Your task to perform on an android device: check android version Image 0: 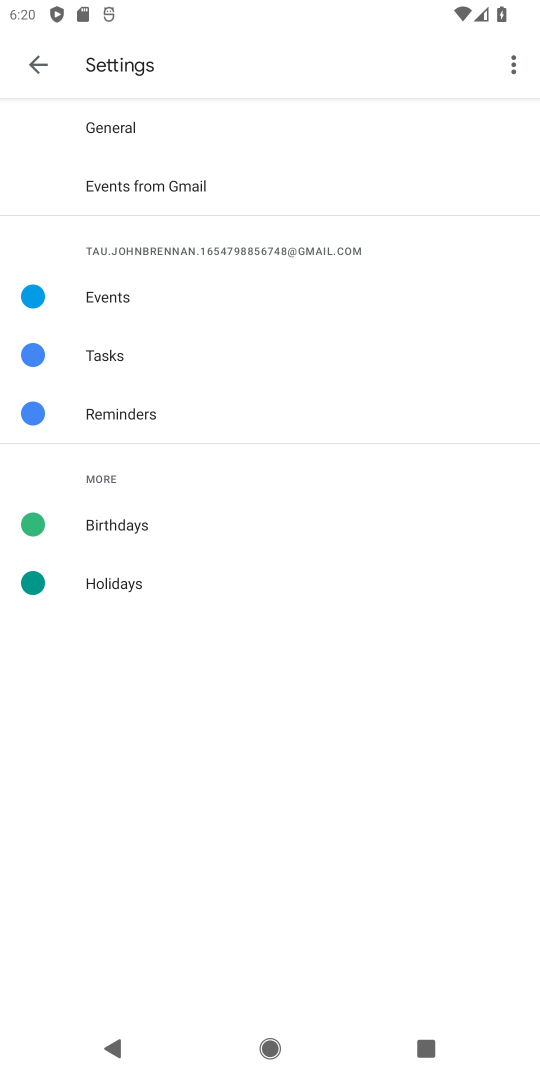
Step 0: press home button
Your task to perform on an android device: check android version Image 1: 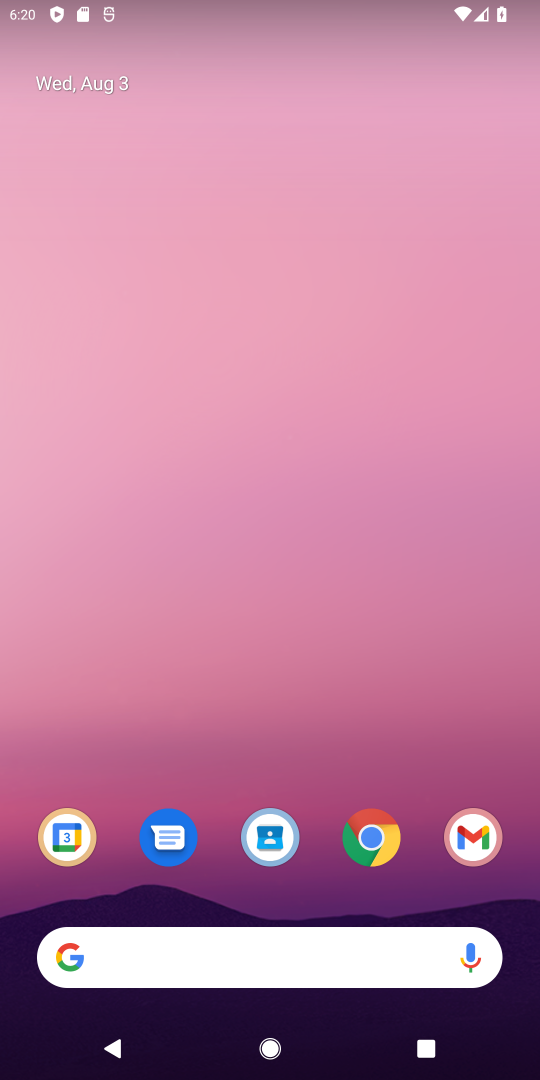
Step 1: drag from (319, 725) to (384, 2)
Your task to perform on an android device: check android version Image 2: 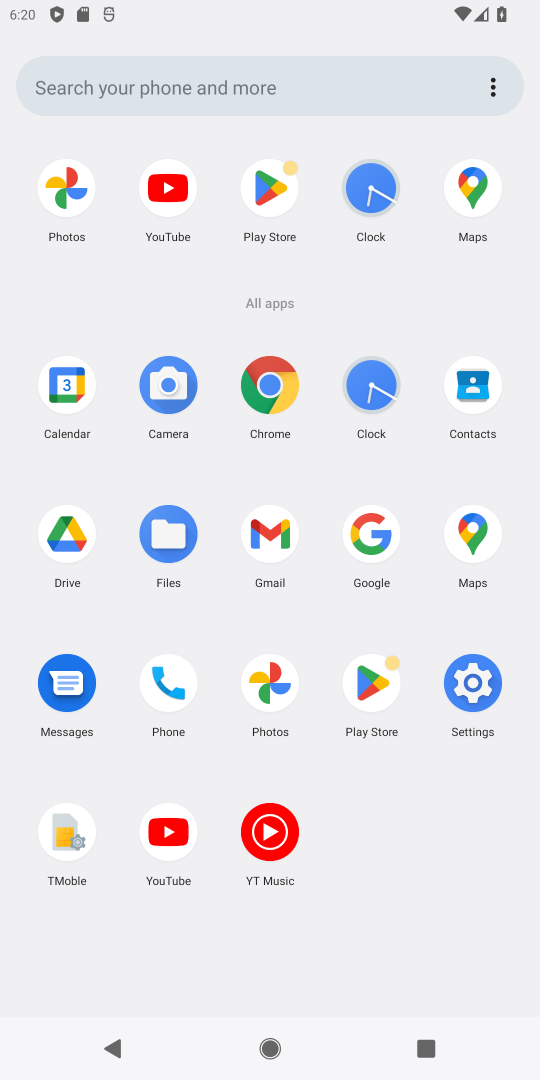
Step 2: click (485, 676)
Your task to perform on an android device: check android version Image 3: 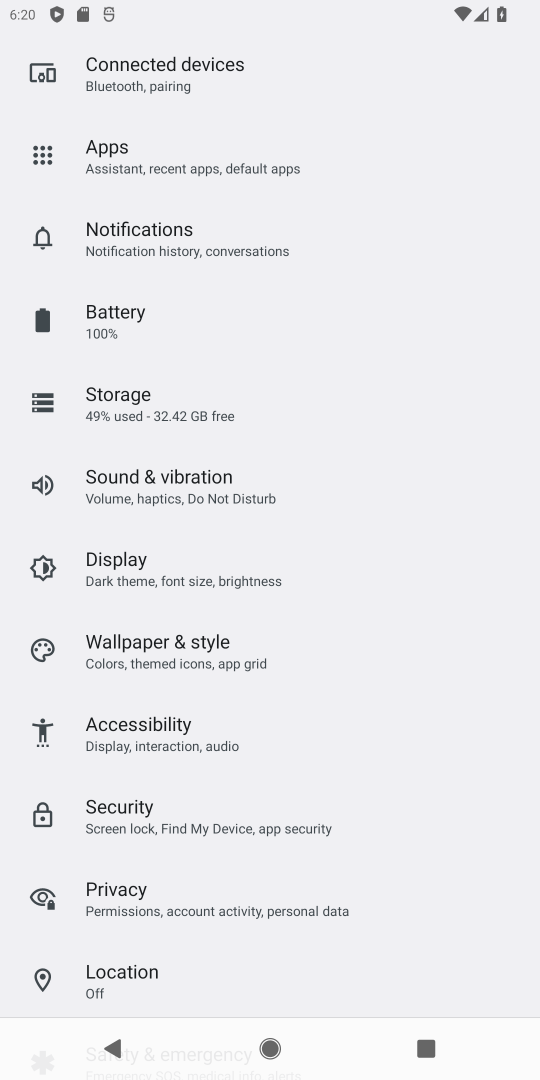
Step 3: drag from (310, 969) to (298, 92)
Your task to perform on an android device: check android version Image 4: 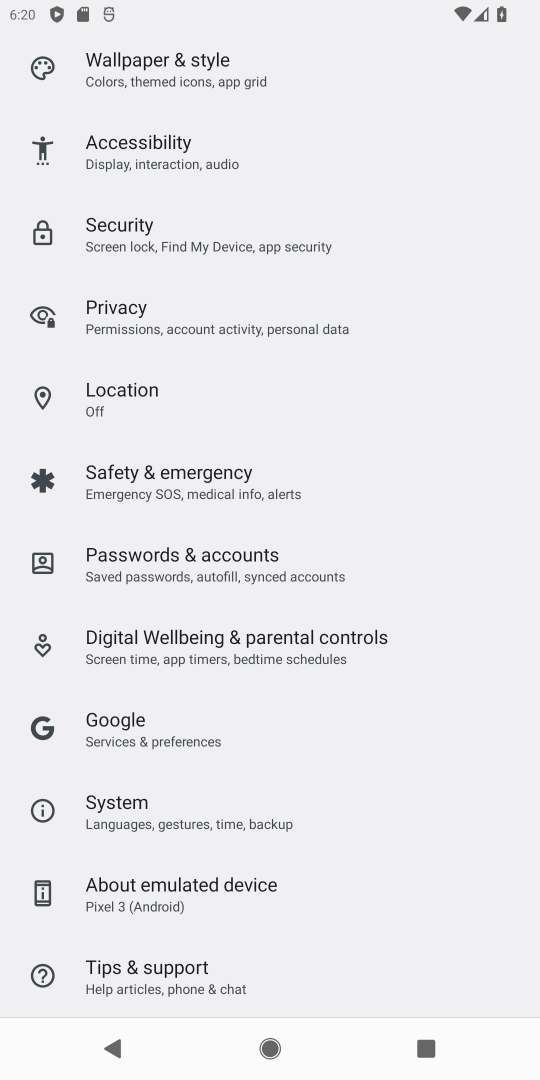
Step 4: drag from (228, 933) to (216, 152)
Your task to perform on an android device: check android version Image 5: 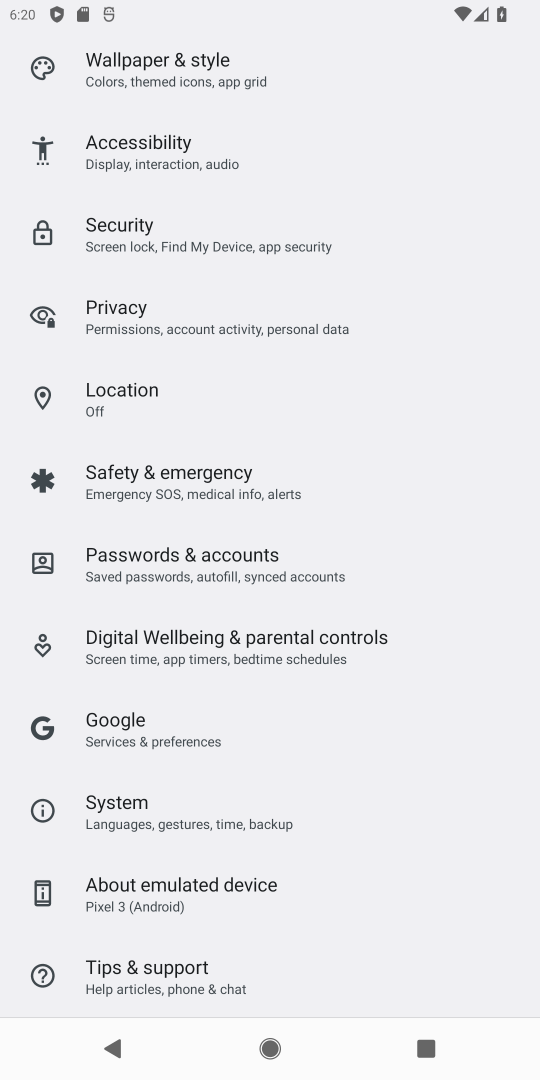
Step 5: drag from (319, 952) to (257, 283)
Your task to perform on an android device: check android version Image 6: 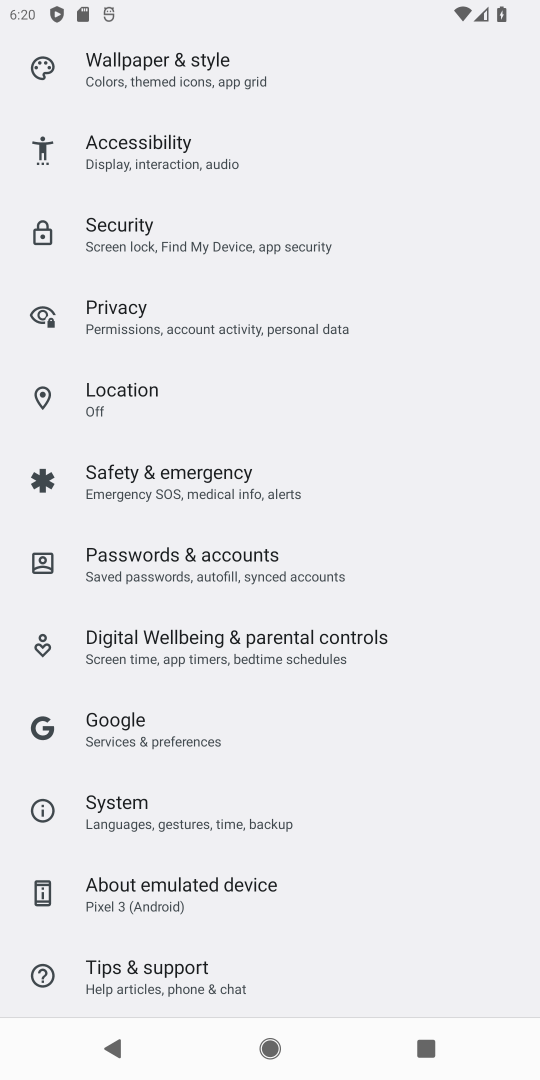
Step 6: click (179, 888)
Your task to perform on an android device: check android version Image 7: 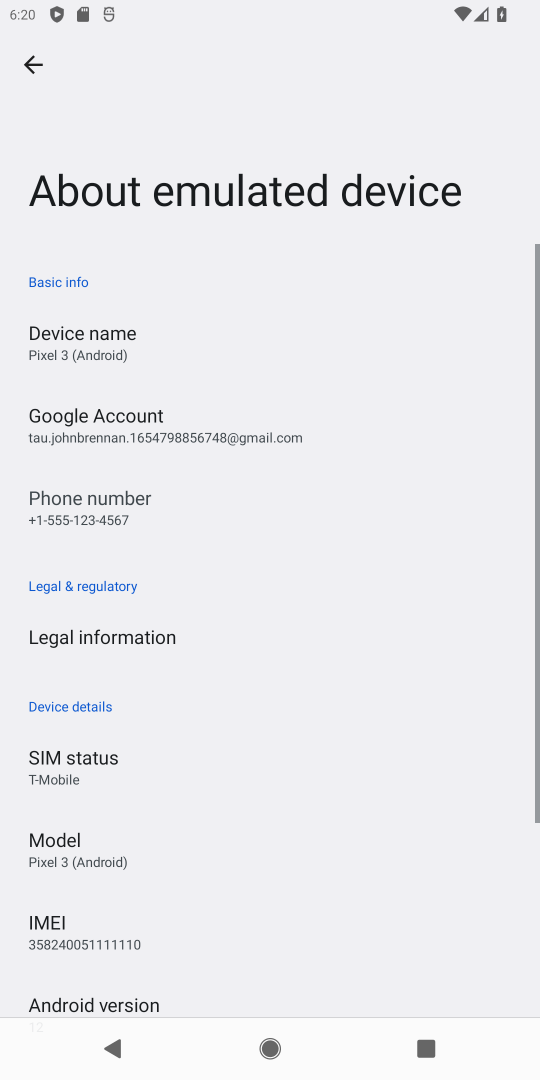
Step 7: click (82, 1001)
Your task to perform on an android device: check android version Image 8: 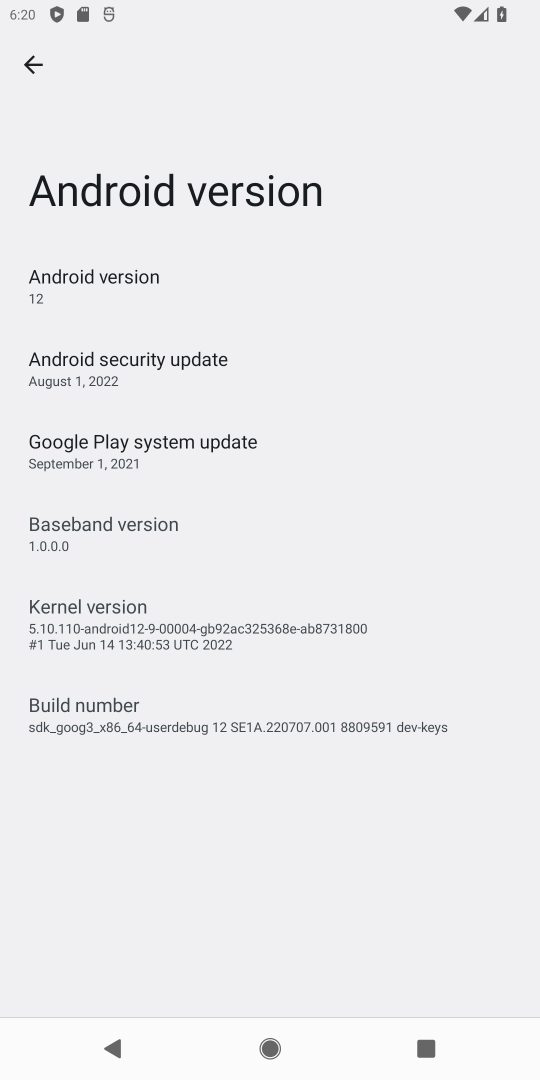
Step 8: task complete